Your task to perform on an android device: create a new album in the google photos Image 0: 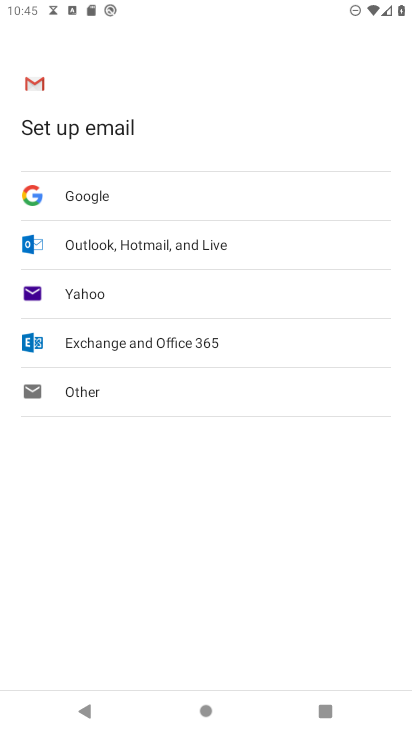
Step 0: press home button
Your task to perform on an android device: create a new album in the google photos Image 1: 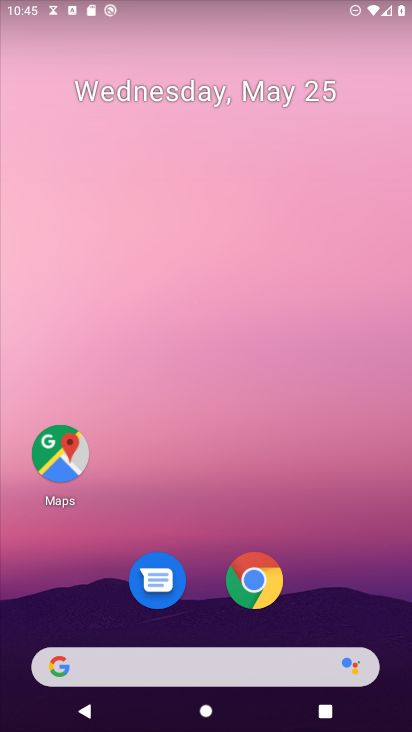
Step 1: drag from (0, 571) to (179, 76)
Your task to perform on an android device: create a new album in the google photos Image 2: 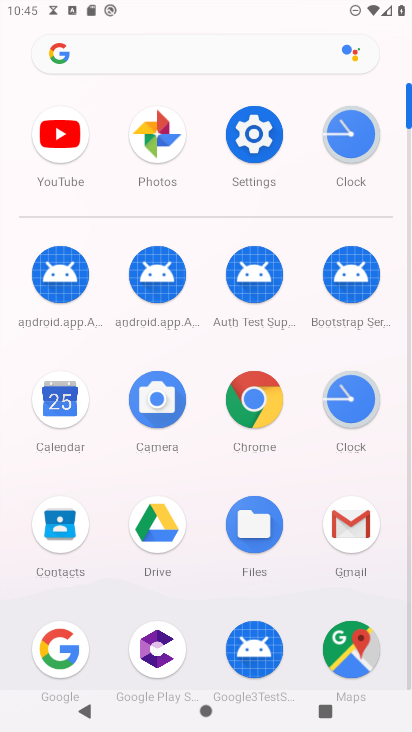
Step 2: click (158, 140)
Your task to perform on an android device: create a new album in the google photos Image 3: 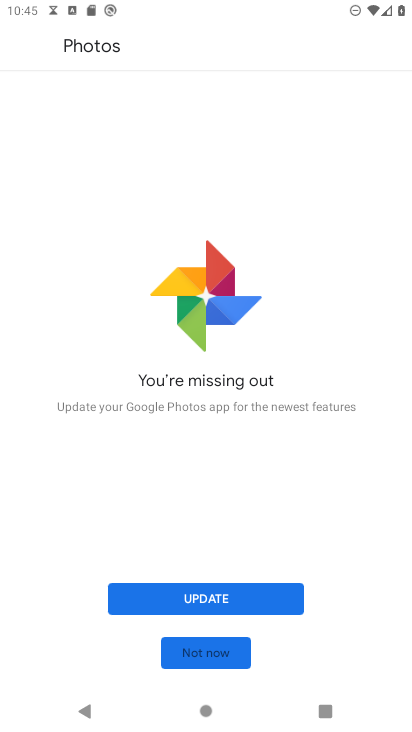
Step 3: click (228, 650)
Your task to perform on an android device: create a new album in the google photos Image 4: 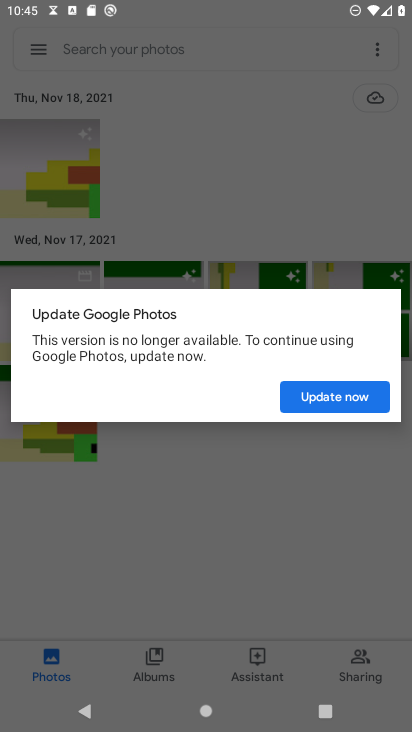
Step 4: click (356, 390)
Your task to perform on an android device: create a new album in the google photos Image 5: 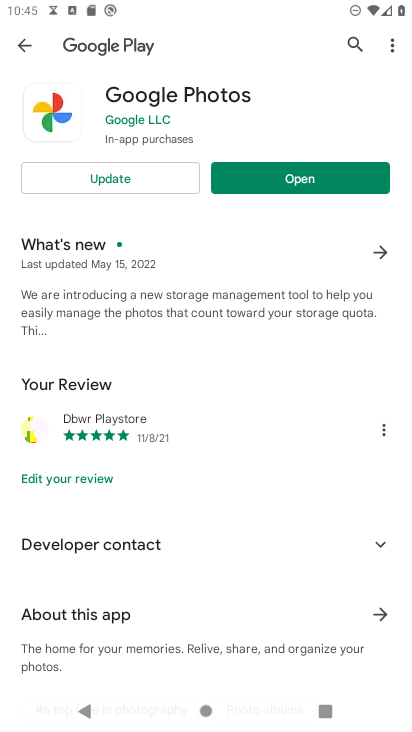
Step 5: click (253, 182)
Your task to perform on an android device: create a new album in the google photos Image 6: 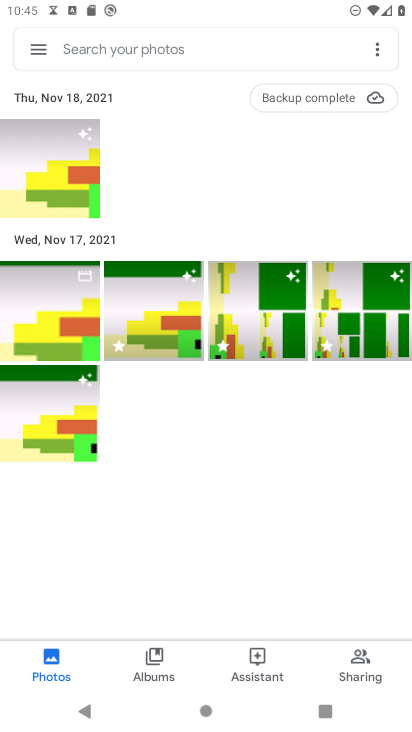
Step 6: click (377, 47)
Your task to perform on an android device: create a new album in the google photos Image 7: 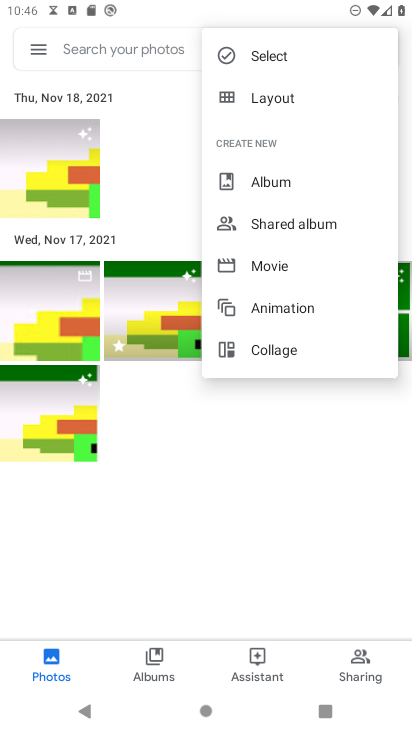
Step 7: click (254, 185)
Your task to perform on an android device: create a new album in the google photos Image 8: 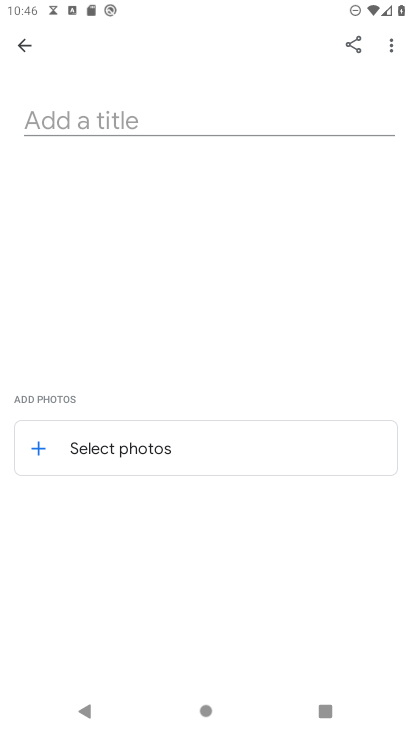
Step 8: click (127, 115)
Your task to perform on an android device: create a new album in the google photos Image 9: 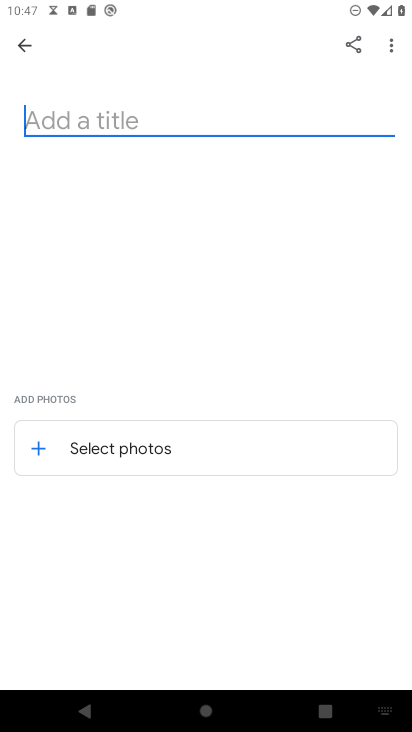
Step 9: task complete